Your task to perform on an android device: all mails in gmail Image 0: 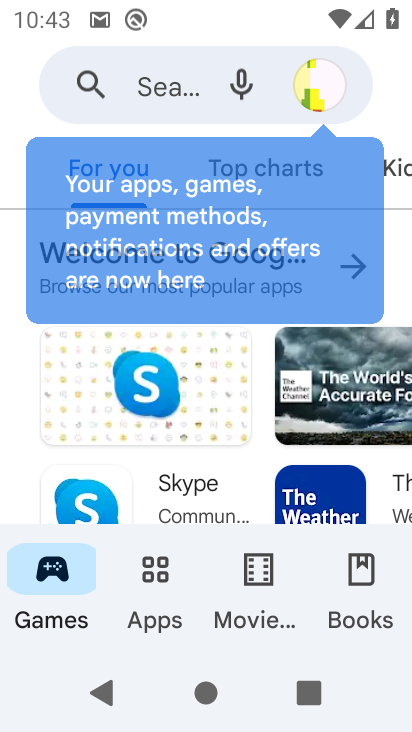
Step 0: drag from (315, 342) to (381, 248)
Your task to perform on an android device: all mails in gmail Image 1: 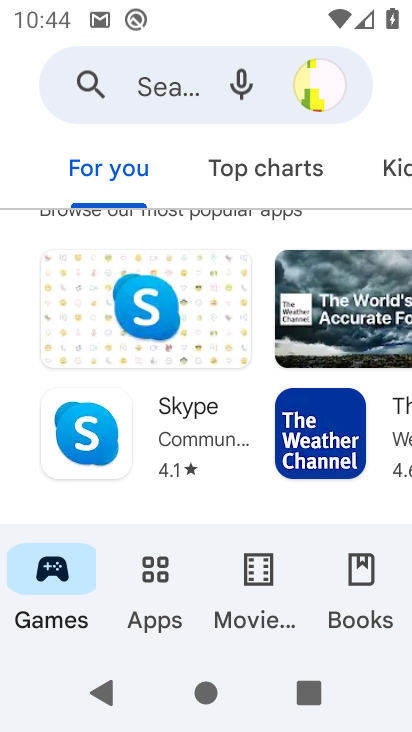
Step 1: click (314, 128)
Your task to perform on an android device: all mails in gmail Image 2: 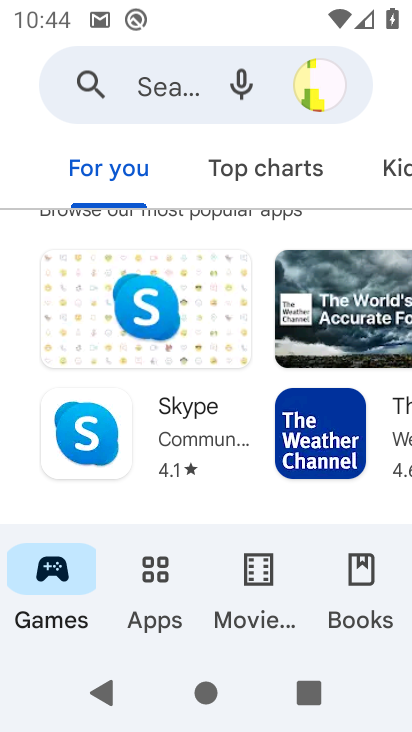
Step 2: press home button
Your task to perform on an android device: all mails in gmail Image 3: 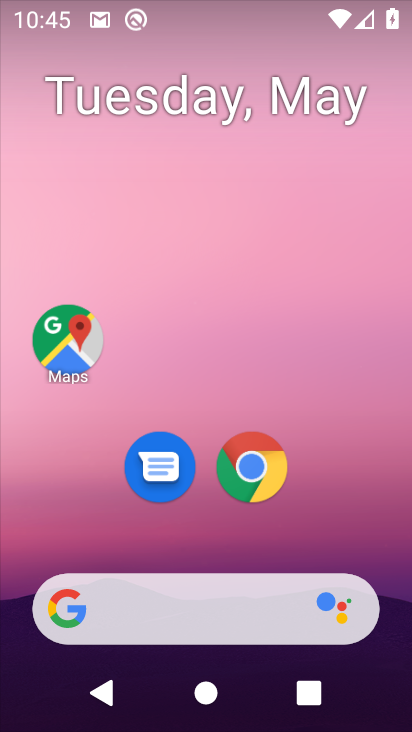
Step 3: click (241, 476)
Your task to perform on an android device: all mails in gmail Image 4: 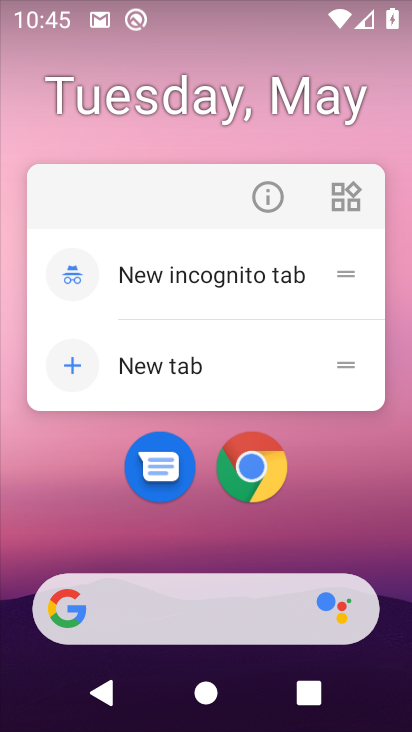
Step 4: click (362, 564)
Your task to perform on an android device: all mails in gmail Image 5: 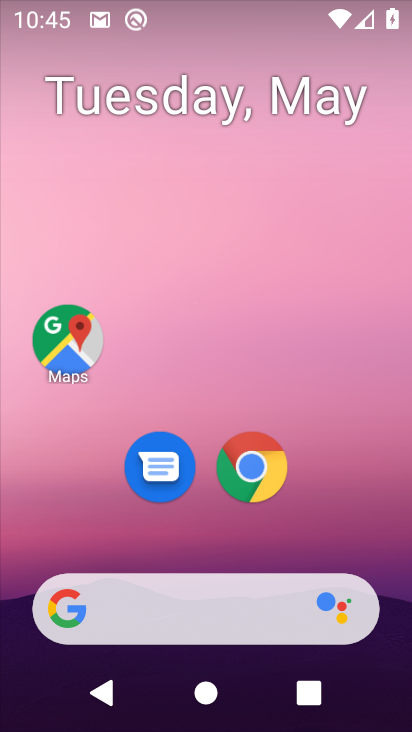
Step 5: drag from (235, 576) to (234, 481)
Your task to perform on an android device: all mails in gmail Image 6: 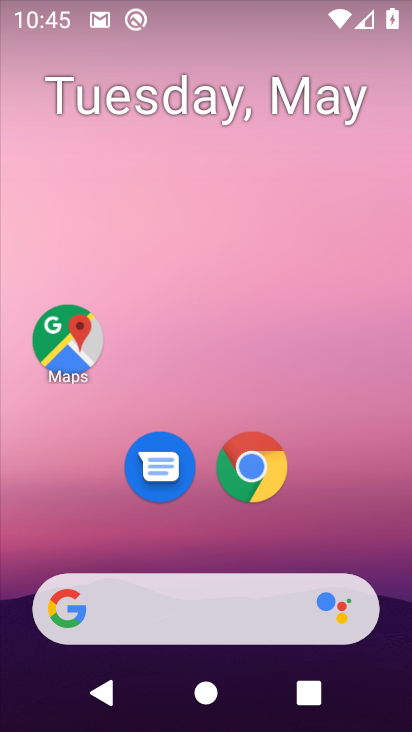
Step 6: drag from (106, 575) to (291, 1)
Your task to perform on an android device: all mails in gmail Image 7: 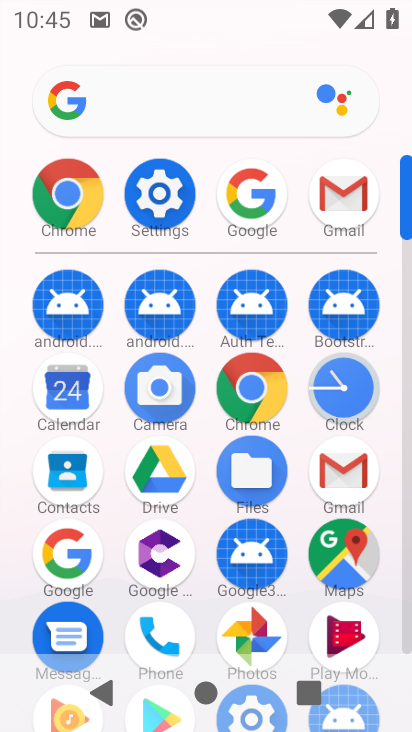
Step 7: click (344, 475)
Your task to perform on an android device: all mails in gmail Image 8: 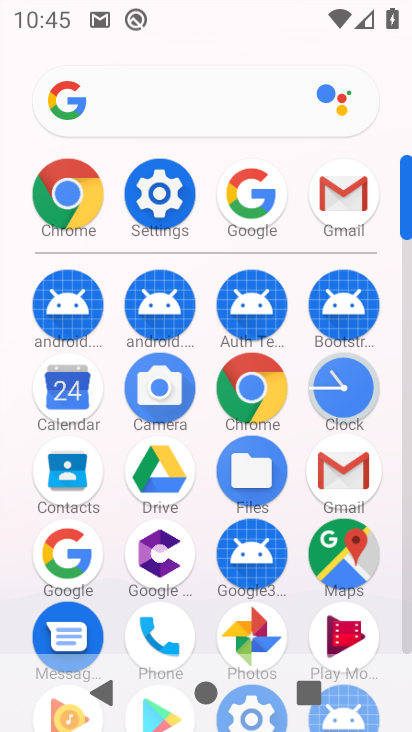
Step 8: click (342, 469)
Your task to perform on an android device: all mails in gmail Image 9: 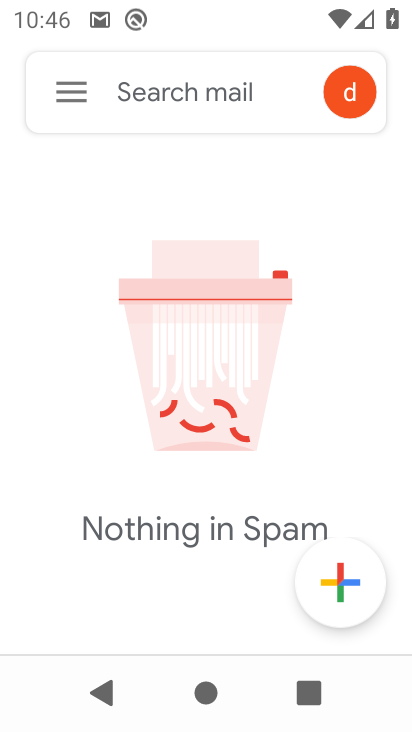
Step 9: click (71, 92)
Your task to perform on an android device: all mails in gmail Image 10: 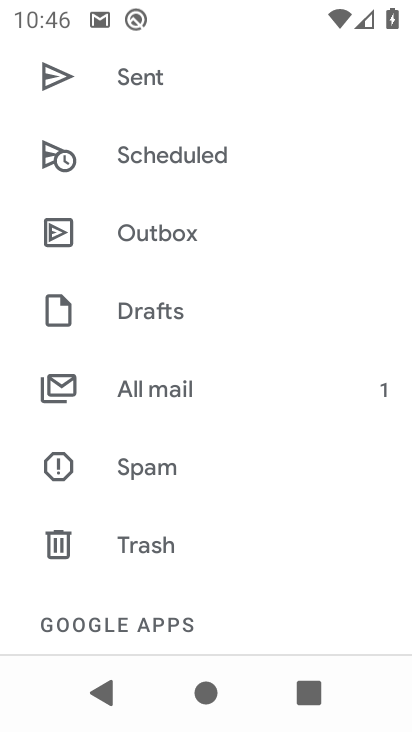
Step 10: click (200, 374)
Your task to perform on an android device: all mails in gmail Image 11: 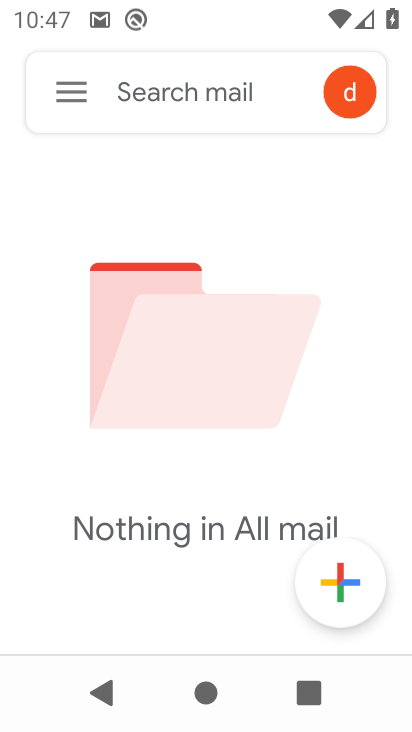
Step 11: task complete